Your task to perform on an android device: Open Reddit.com Image 0: 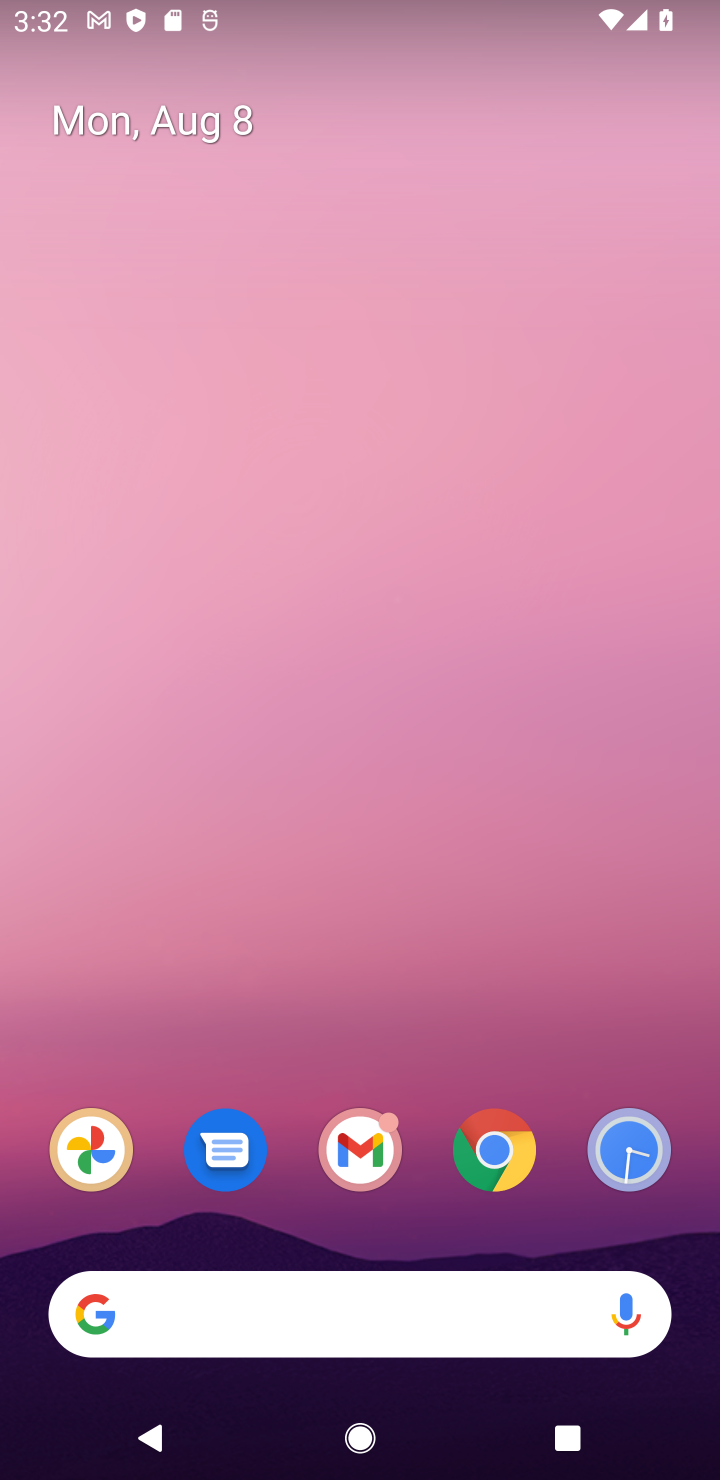
Step 0: click (370, 1301)
Your task to perform on an android device: Open Reddit.com Image 1: 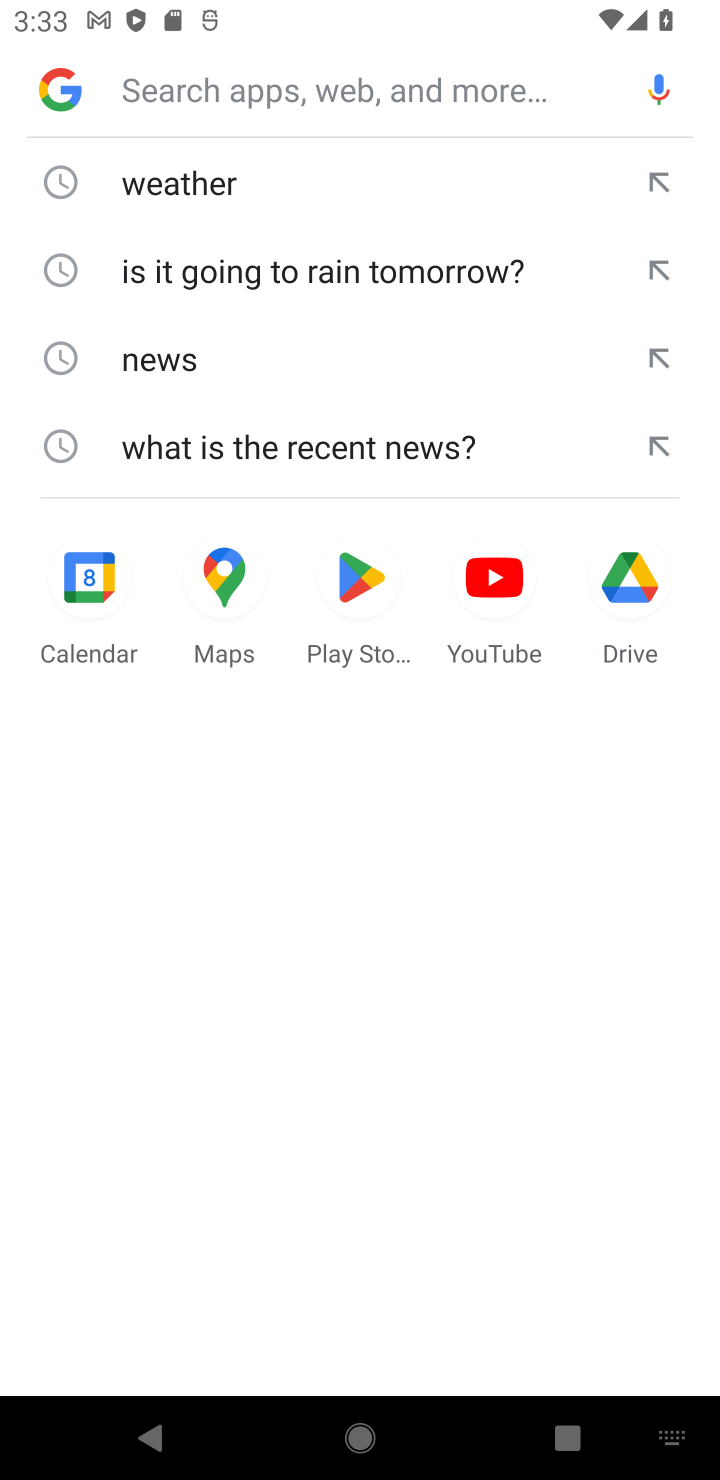
Step 1: type "reddit.com"
Your task to perform on an android device: Open Reddit.com Image 2: 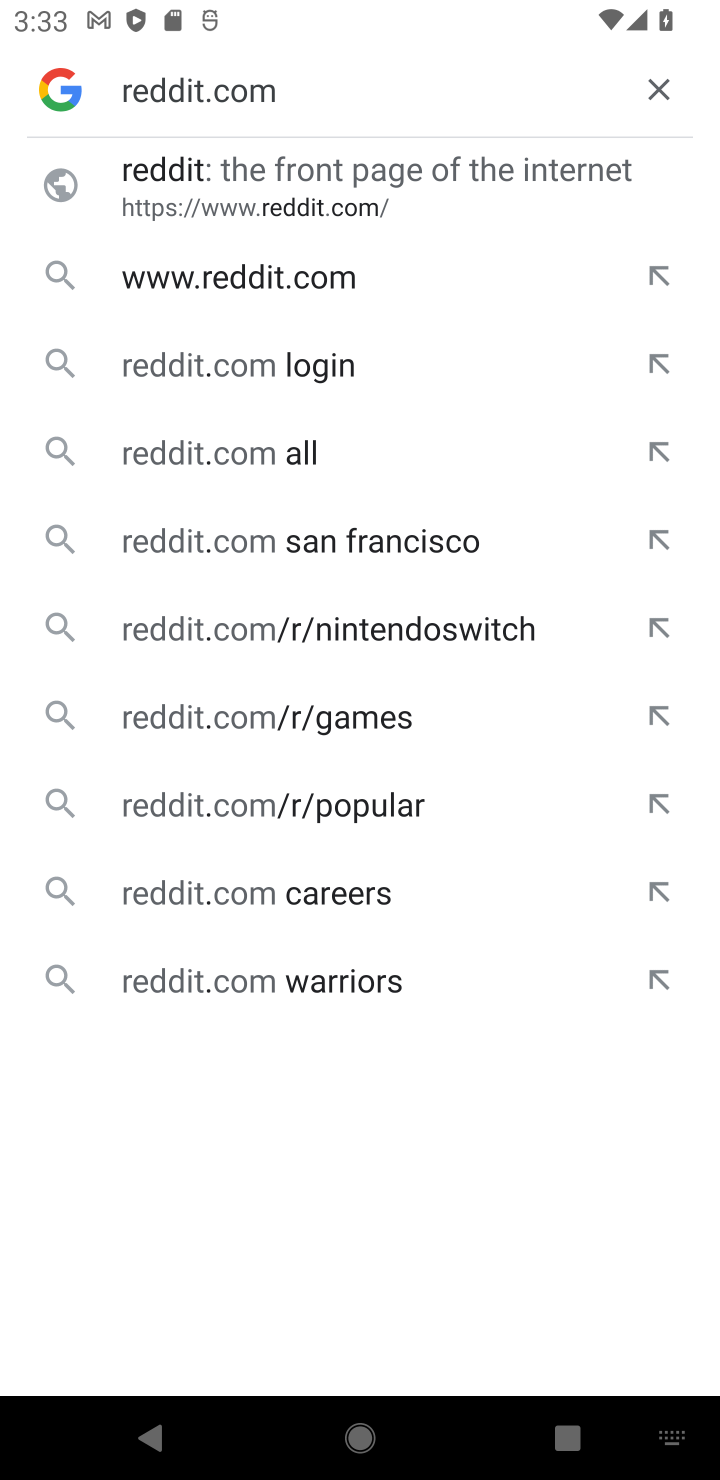
Step 2: click (278, 163)
Your task to perform on an android device: Open Reddit.com Image 3: 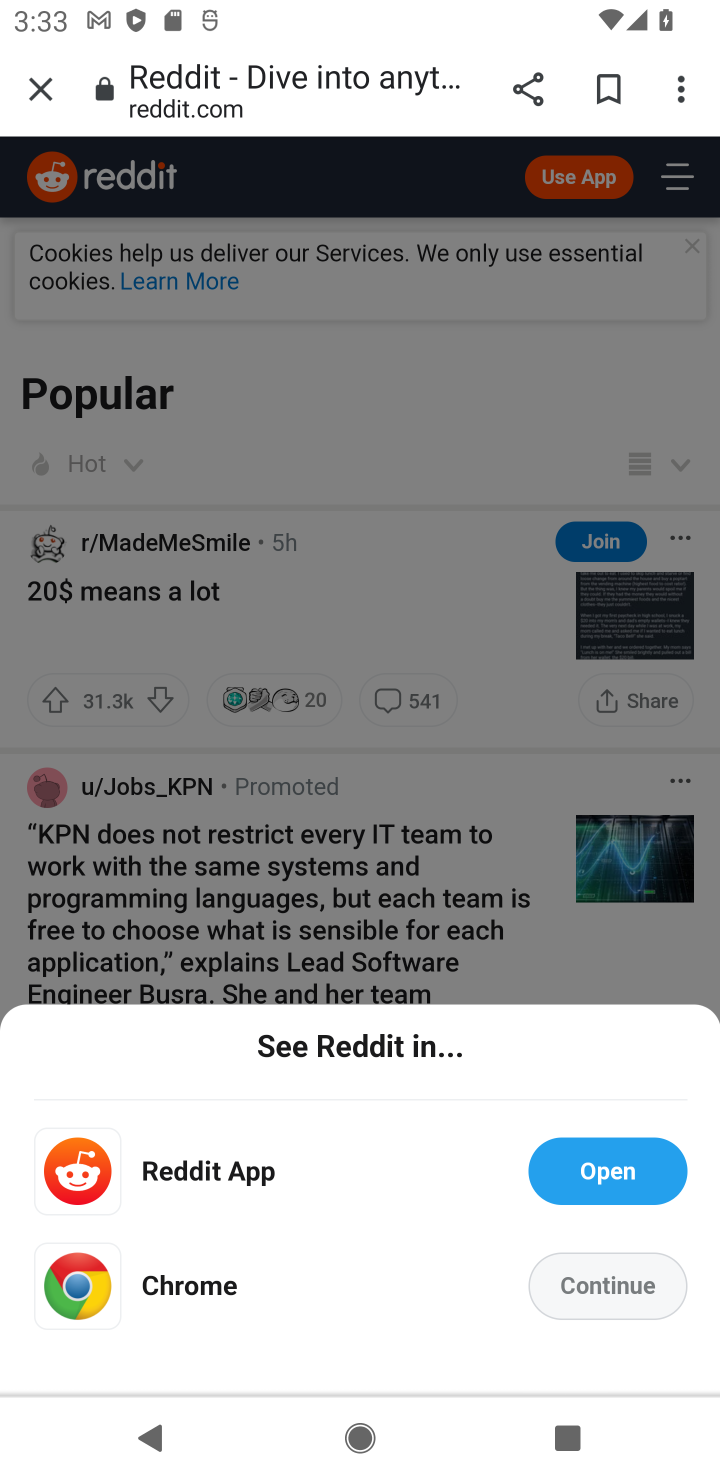
Step 3: task complete